Your task to perform on an android device: open chrome privacy settings Image 0: 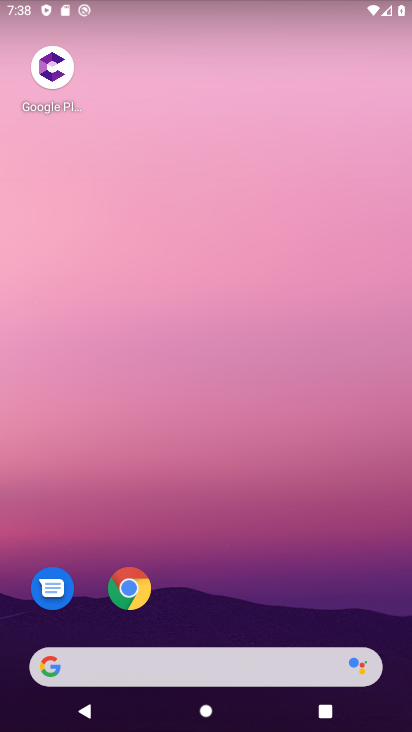
Step 0: click (135, 588)
Your task to perform on an android device: open chrome privacy settings Image 1: 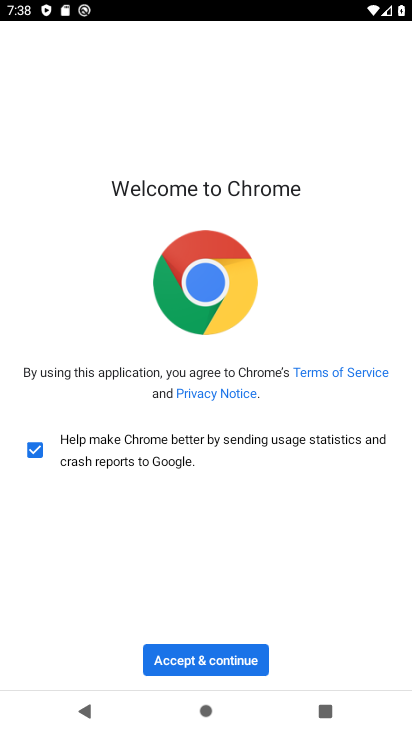
Step 1: click (222, 669)
Your task to perform on an android device: open chrome privacy settings Image 2: 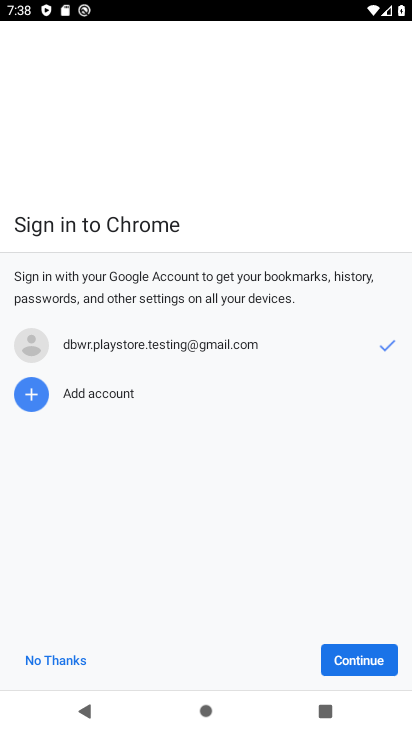
Step 2: click (368, 660)
Your task to perform on an android device: open chrome privacy settings Image 3: 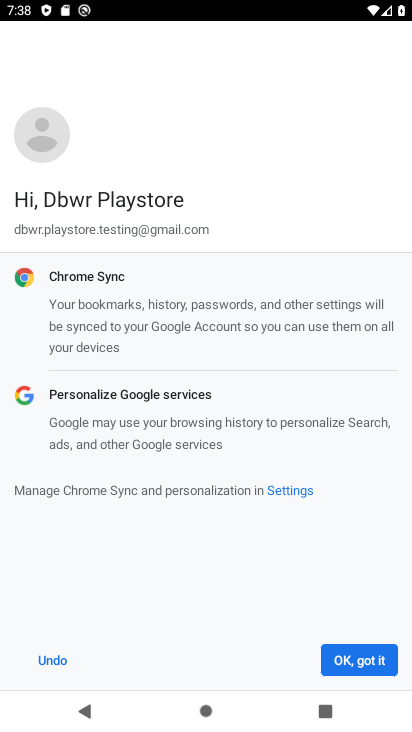
Step 3: click (368, 660)
Your task to perform on an android device: open chrome privacy settings Image 4: 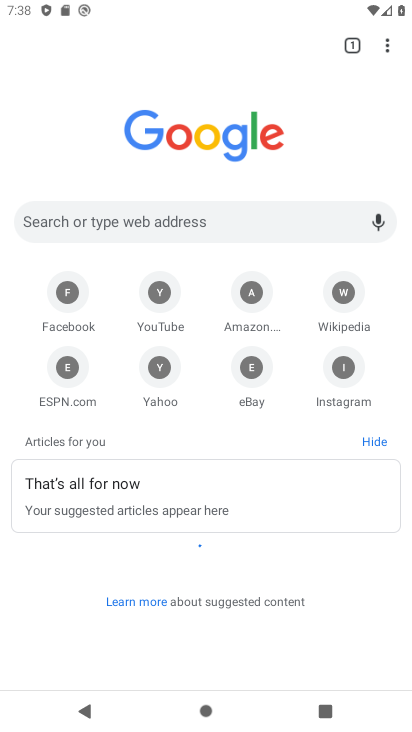
Step 4: click (383, 38)
Your task to perform on an android device: open chrome privacy settings Image 5: 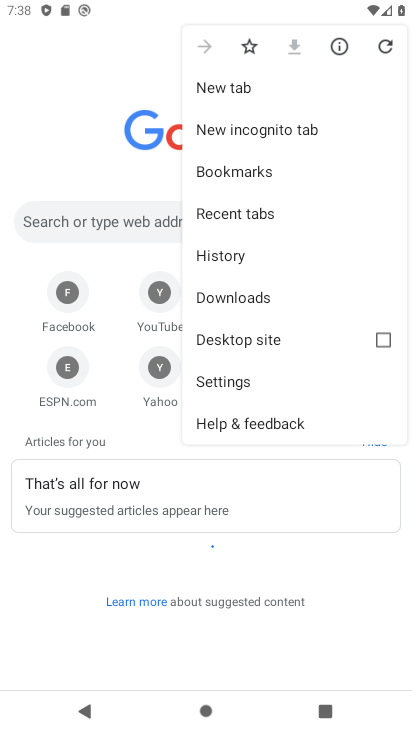
Step 5: click (229, 386)
Your task to perform on an android device: open chrome privacy settings Image 6: 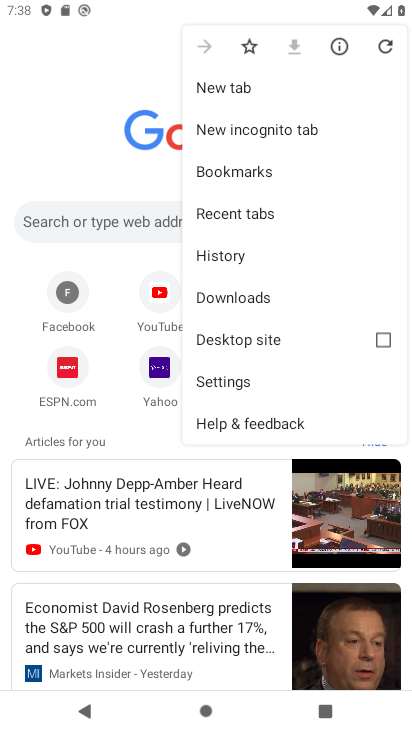
Step 6: click (229, 386)
Your task to perform on an android device: open chrome privacy settings Image 7: 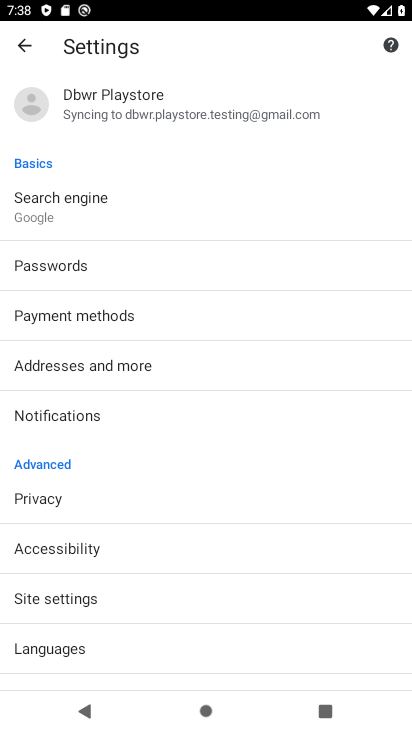
Step 7: click (68, 494)
Your task to perform on an android device: open chrome privacy settings Image 8: 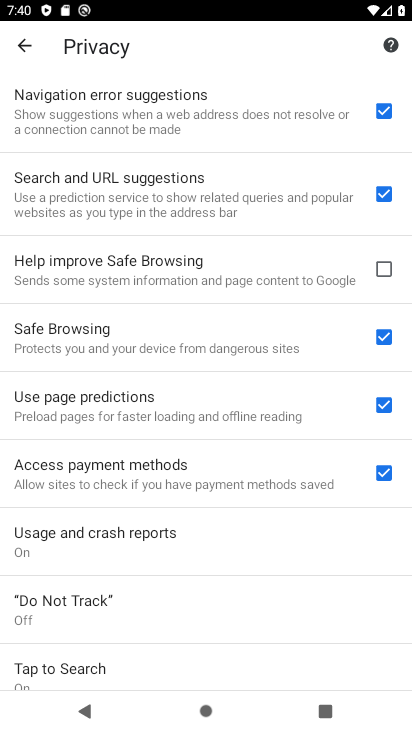
Step 8: task complete